Your task to perform on an android device: turn on showing notifications on the lock screen Image 0: 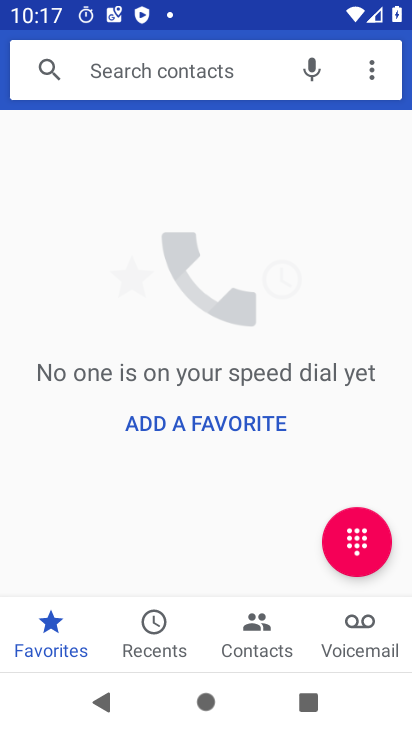
Step 0: press home button
Your task to perform on an android device: turn on showing notifications on the lock screen Image 1: 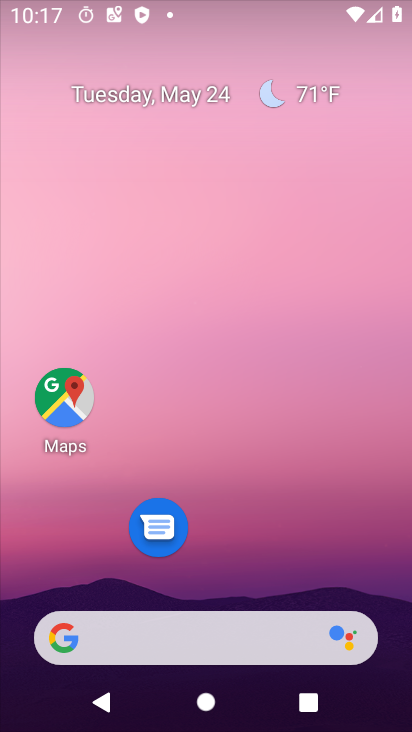
Step 1: drag from (203, 581) to (268, 16)
Your task to perform on an android device: turn on showing notifications on the lock screen Image 2: 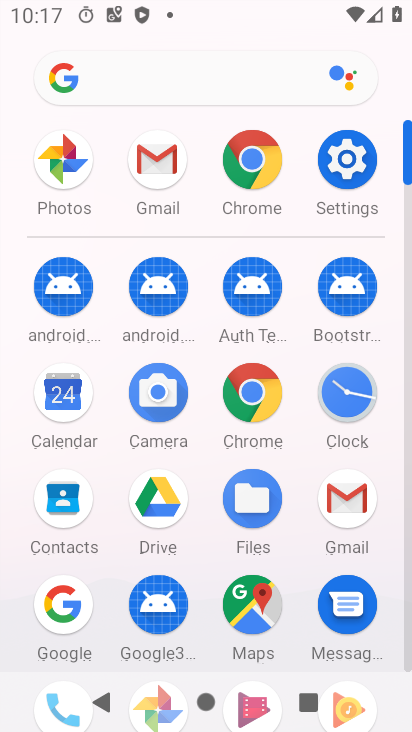
Step 2: click (349, 154)
Your task to perform on an android device: turn on showing notifications on the lock screen Image 3: 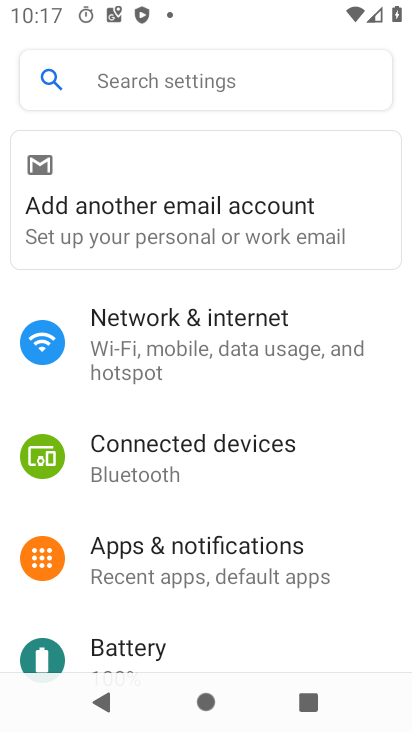
Step 3: drag from (218, 554) to (214, 340)
Your task to perform on an android device: turn on showing notifications on the lock screen Image 4: 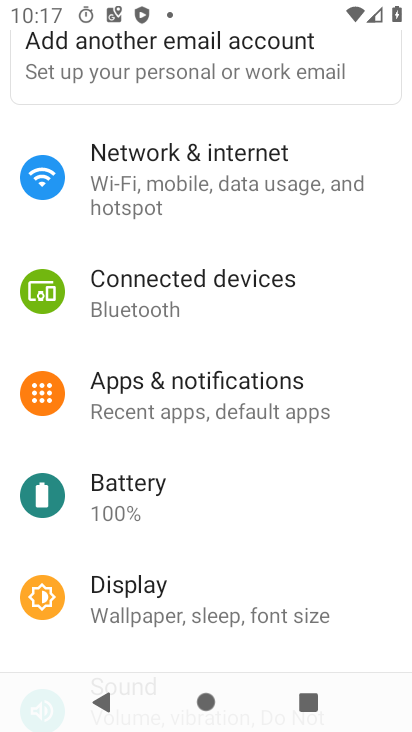
Step 4: click (207, 425)
Your task to perform on an android device: turn on showing notifications on the lock screen Image 5: 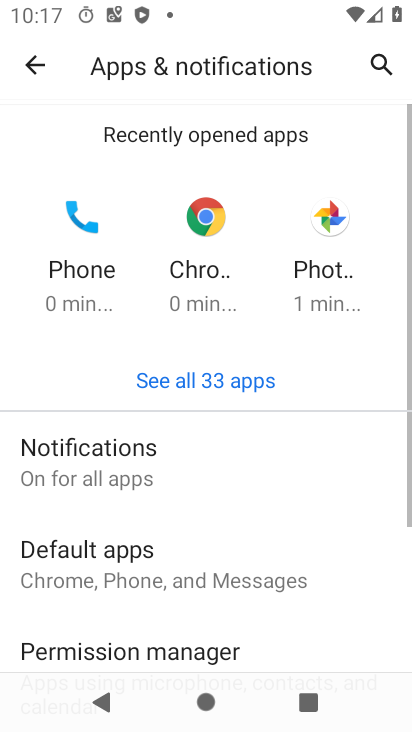
Step 5: click (139, 464)
Your task to perform on an android device: turn on showing notifications on the lock screen Image 6: 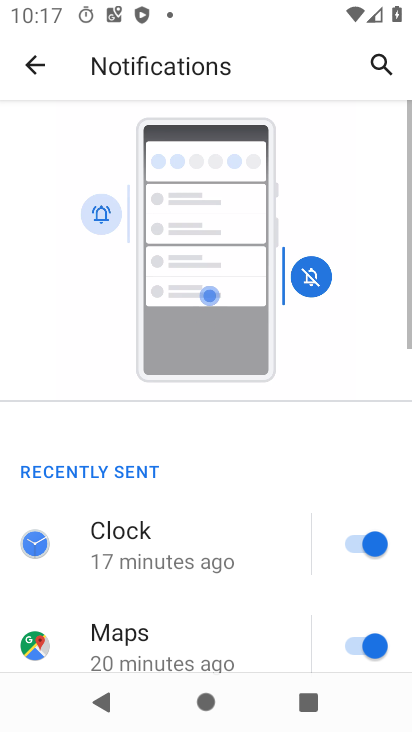
Step 6: drag from (225, 622) to (234, 47)
Your task to perform on an android device: turn on showing notifications on the lock screen Image 7: 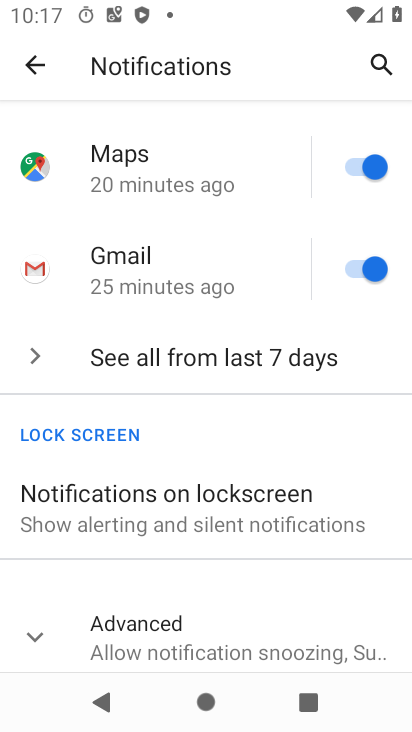
Step 7: click (207, 518)
Your task to perform on an android device: turn on showing notifications on the lock screen Image 8: 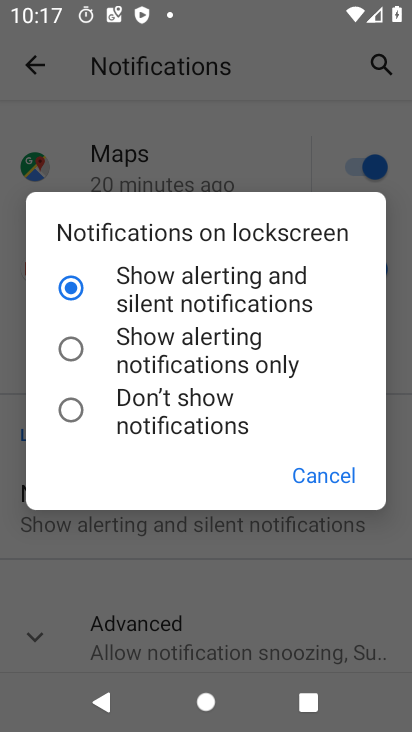
Step 8: click (318, 485)
Your task to perform on an android device: turn on showing notifications on the lock screen Image 9: 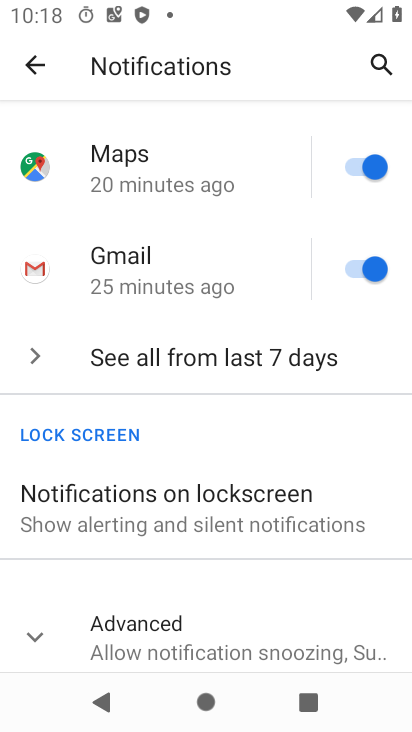
Step 9: task complete